Your task to perform on an android device: turn off location Image 0: 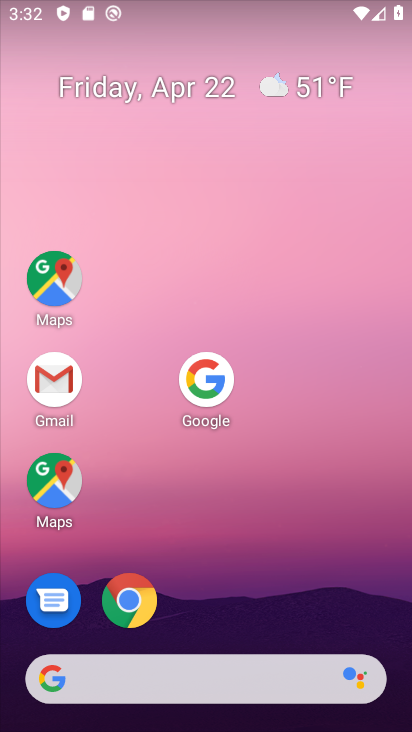
Step 0: drag from (293, 623) to (169, 106)
Your task to perform on an android device: turn off location Image 1: 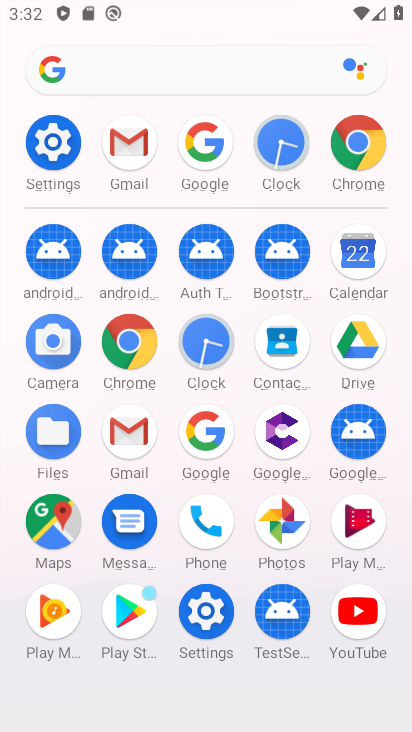
Step 1: click (205, 625)
Your task to perform on an android device: turn off location Image 2: 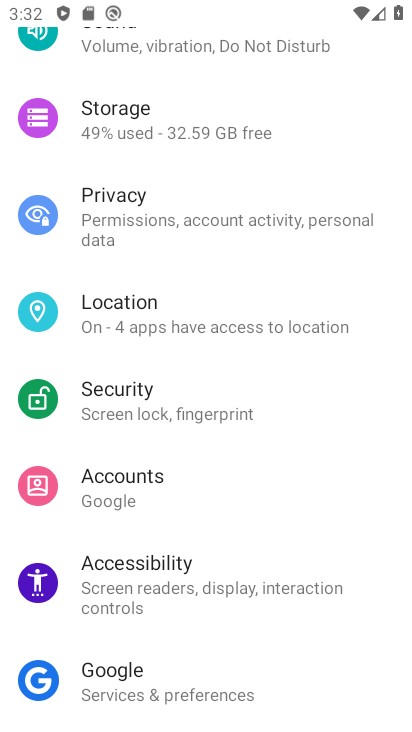
Step 2: click (121, 319)
Your task to perform on an android device: turn off location Image 3: 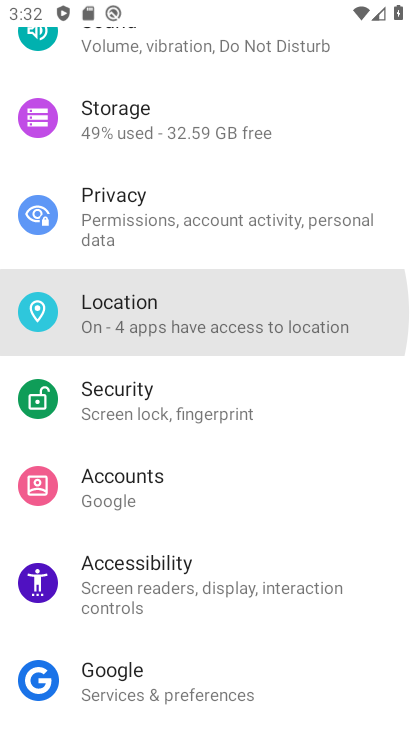
Step 3: click (121, 319)
Your task to perform on an android device: turn off location Image 4: 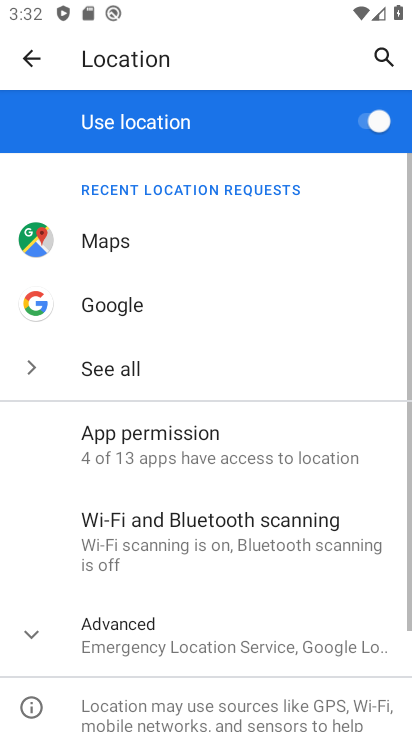
Step 4: click (374, 117)
Your task to perform on an android device: turn off location Image 5: 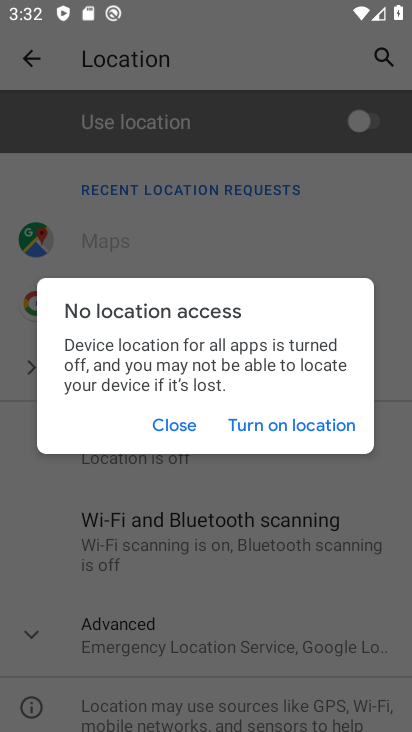
Step 5: task complete